Your task to perform on an android device: Show me productivity apps on the Play Store Image 0: 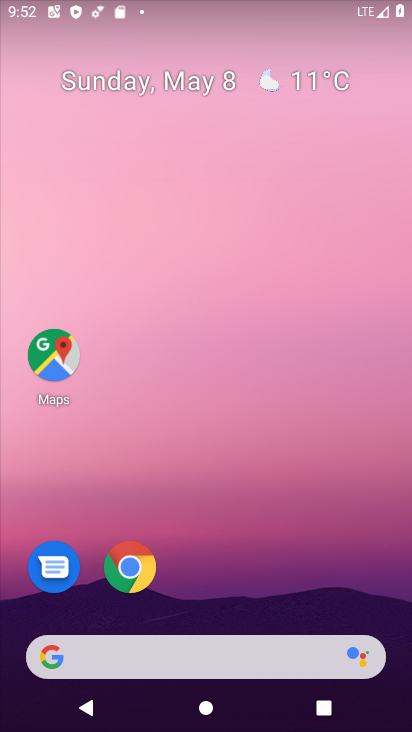
Step 0: drag from (231, 486) to (285, 48)
Your task to perform on an android device: Show me productivity apps on the Play Store Image 1: 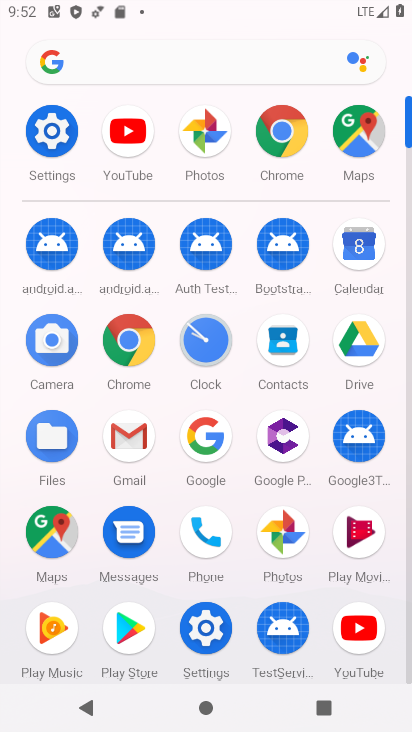
Step 1: click (140, 620)
Your task to perform on an android device: Show me productivity apps on the Play Store Image 2: 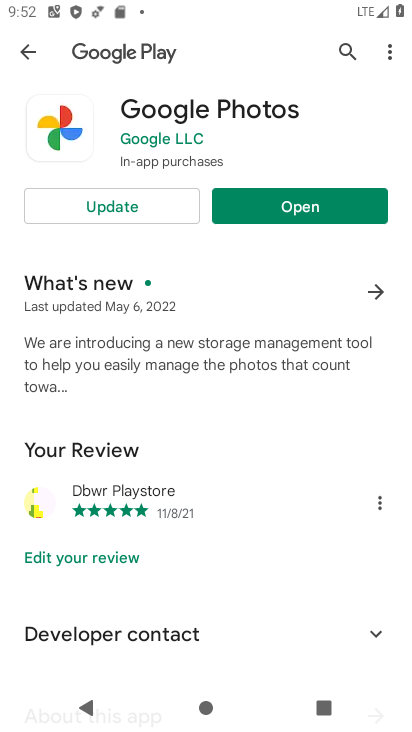
Step 2: click (29, 48)
Your task to perform on an android device: Show me productivity apps on the Play Store Image 3: 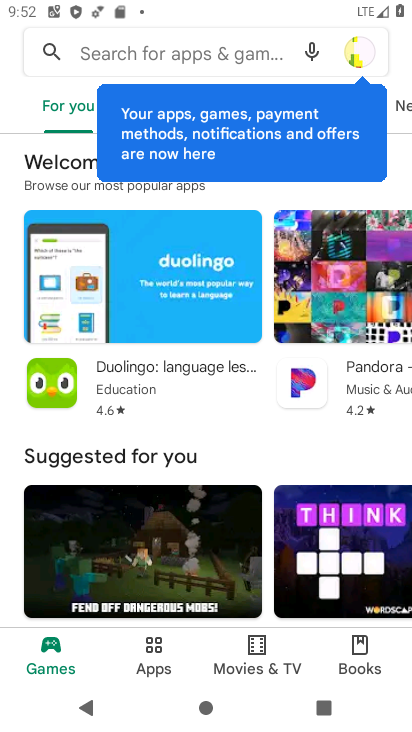
Step 3: drag from (294, 554) to (365, 2)
Your task to perform on an android device: Show me productivity apps on the Play Store Image 4: 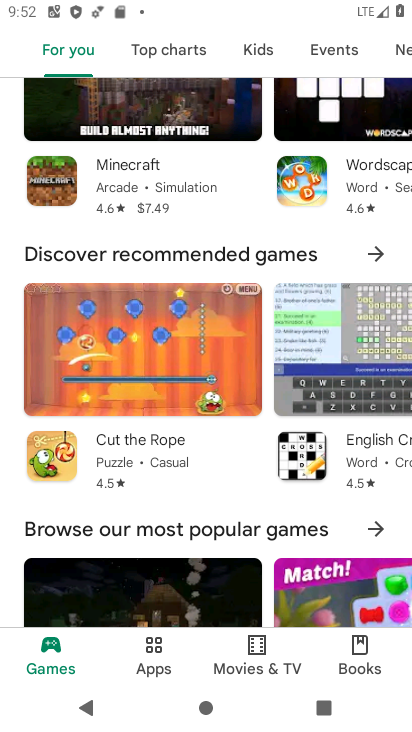
Step 4: drag from (224, 592) to (281, 97)
Your task to perform on an android device: Show me productivity apps on the Play Store Image 5: 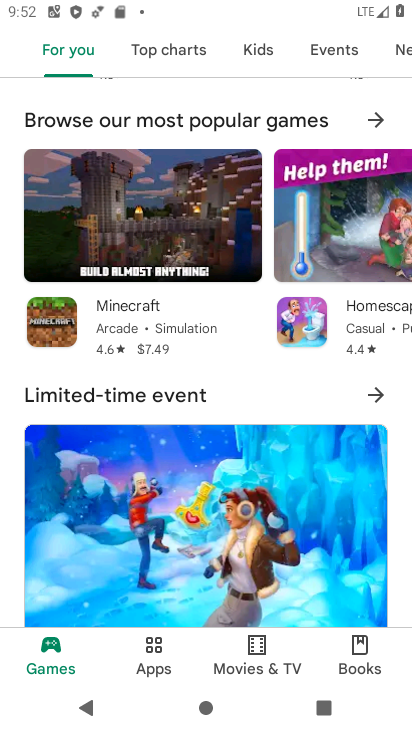
Step 5: click (151, 647)
Your task to perform on an android device: Show me productivity apps on the Play Store Image 6: 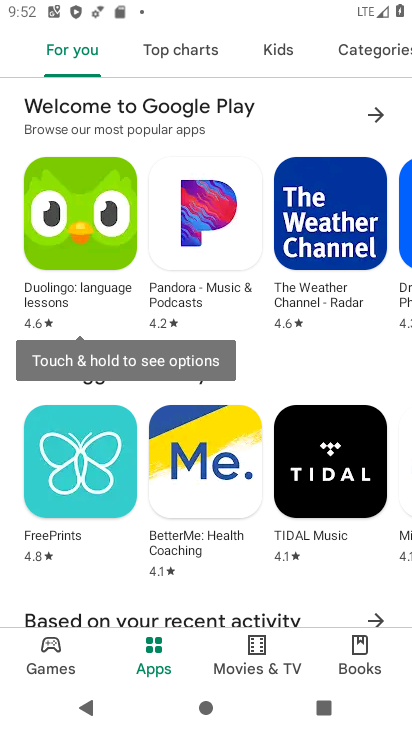
Step 6: drag from (152, 542) to (254, 209)
Your task to perform on an android device: Show me productivity apps on the Play Store Image 7: 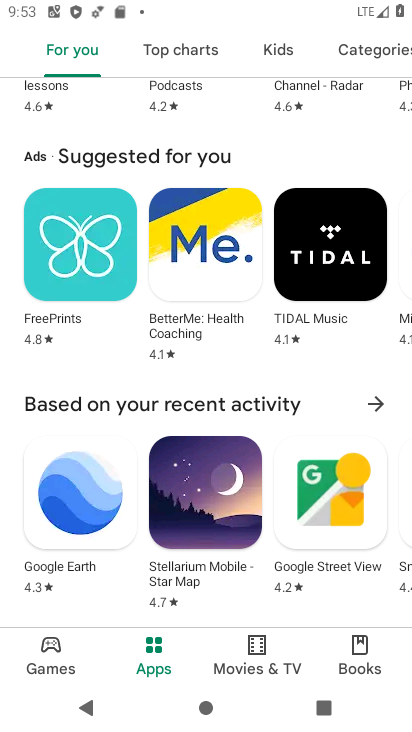
Step 7: drag from (263, 522) to (360, 72)
Your task to perform on an android device: Show me productivity apps on the Play Store Image 8: 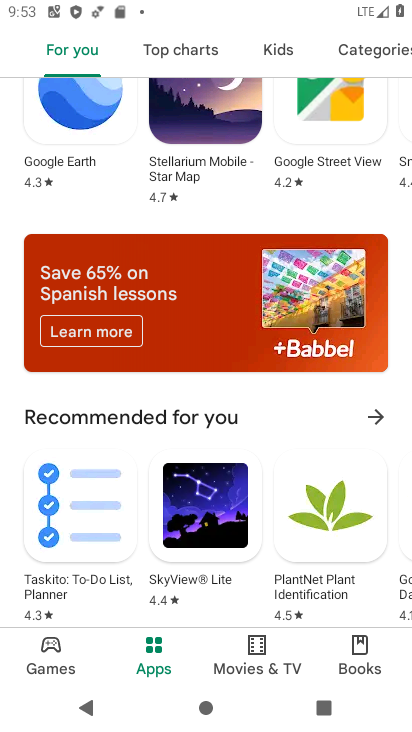
Step 8: drag from (253, 584) to (360, 72)
Your task to perform on an android device: Show me productivity apps on the Play Store Image 9: 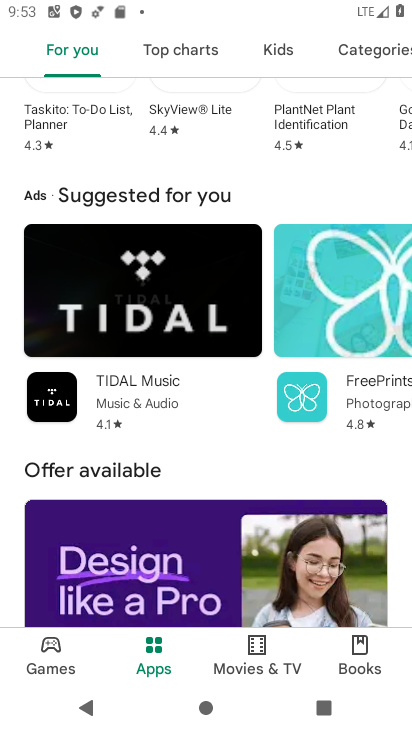
Step 9: drag from (223, 509) to (319, 3)
Your task to perform on an android device: Show me productivity apps on the Play Store Image 10: 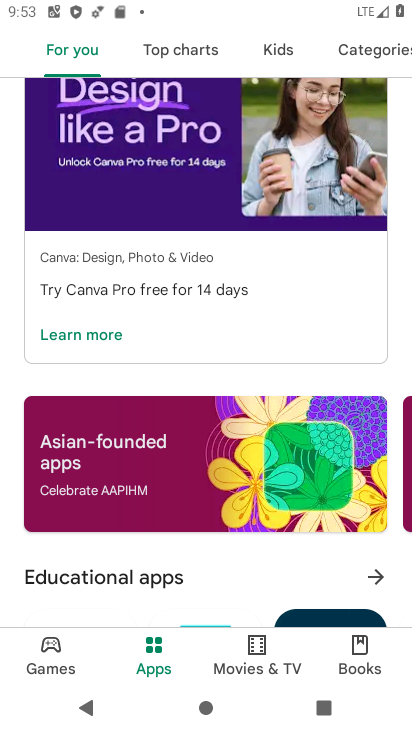
Step 10: drag from (225, 529) to (326, 3)
Your task to perform on an android device: Show me productivity apps on the Play Store Image 11: 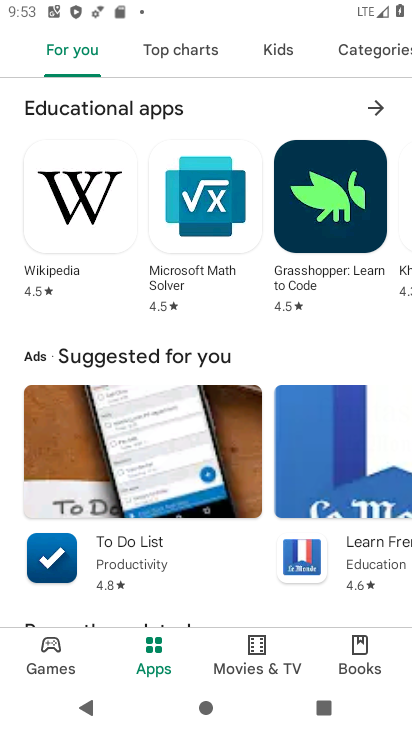
Step 11: drag from (187, 584) to (293, 33)
Your task to perform on an android device: Show me productivity apps on the Play Store Image 12: 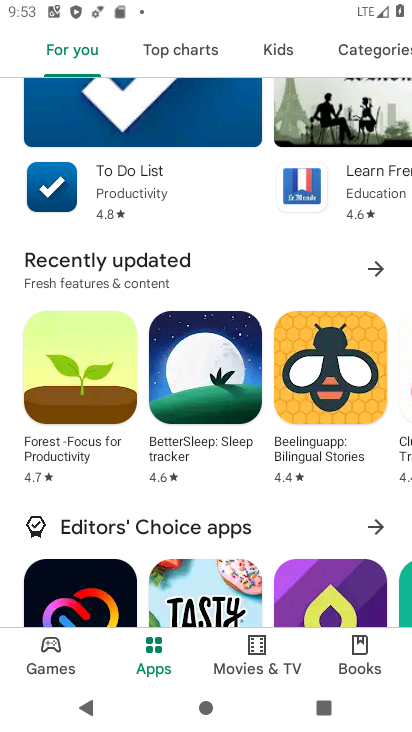
Step 12: drag from (218, 526) to (284, 49)
Your task to perform on an android device: Show me productivity apps on the Play Store Image 13: 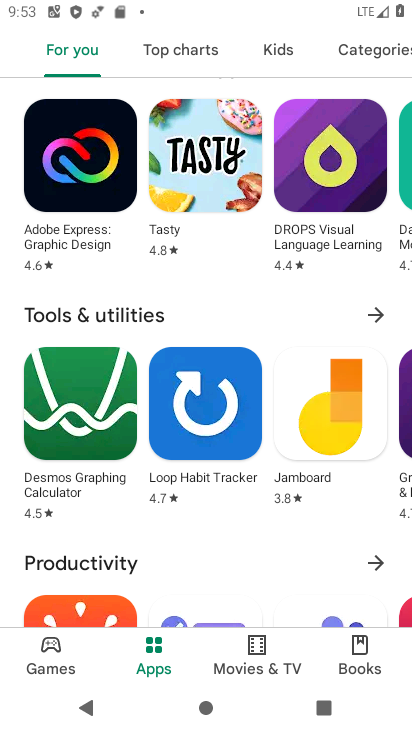
Step 13: drag from (218, 549) to (280, 168)
Your task to perform on an android device: Show me productivity apps on the Play Store Image 14: 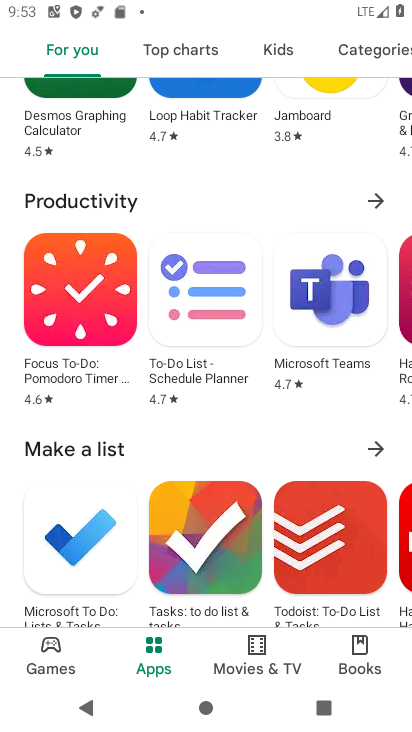
Step 14: click (378, 189)
Your task to perform on an android device: Show me productivity apps on the Play Store Image 15: 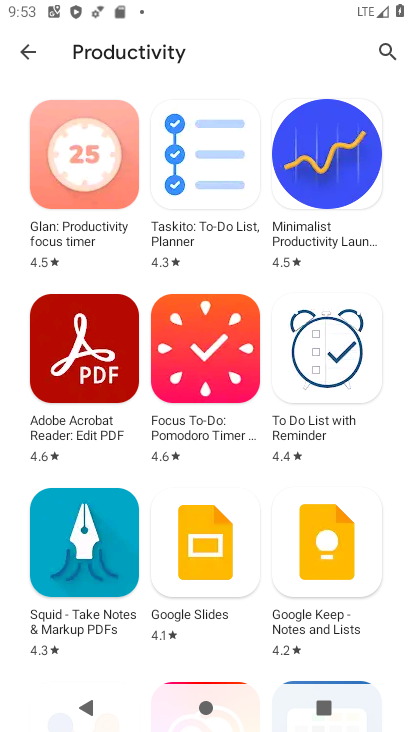
Step 15: task complete